Your task to perform on an android device: change the clock style Image 0: 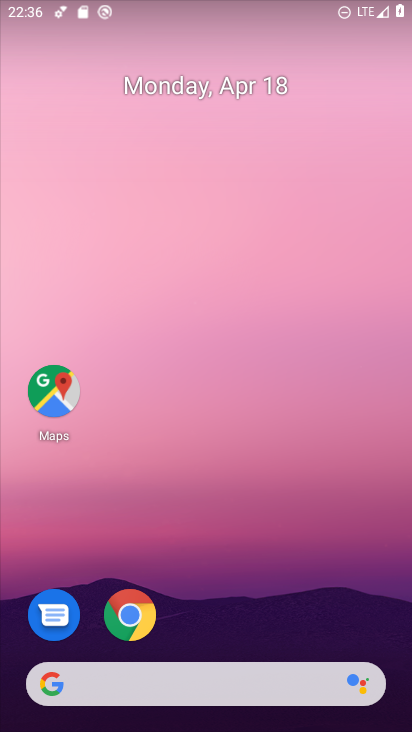
Step 0: drag from (364, 620) to (351, 27)
Your task to perform on an android device: change the clock style Image 1: 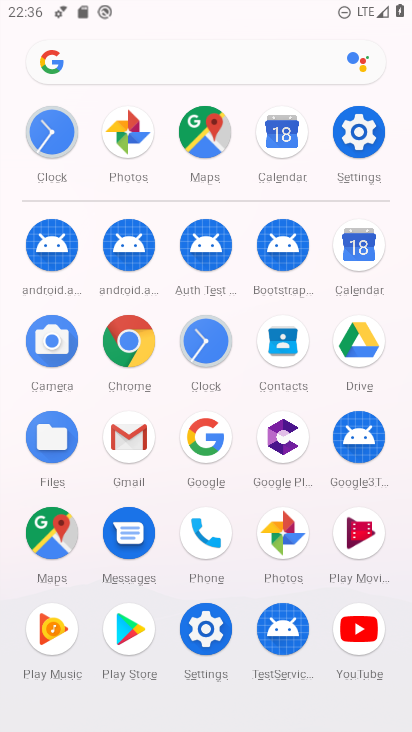
Step 1: click (50, 139)
Your task to perform on an android device: change the clock style Image 2: 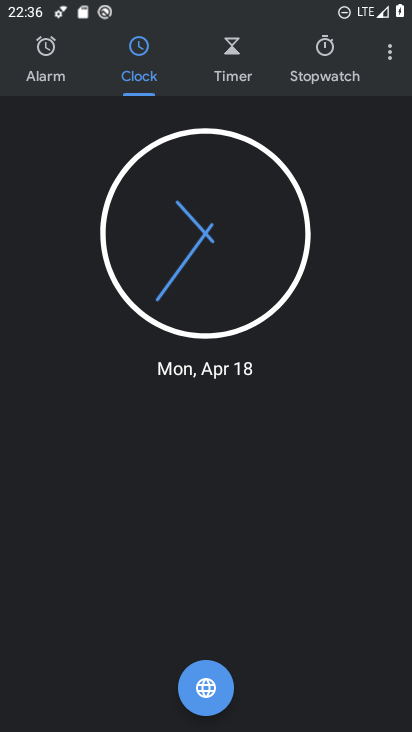
Step 2: click (391, 63)
Your task to perform on an android device: change the clock style Image 3: 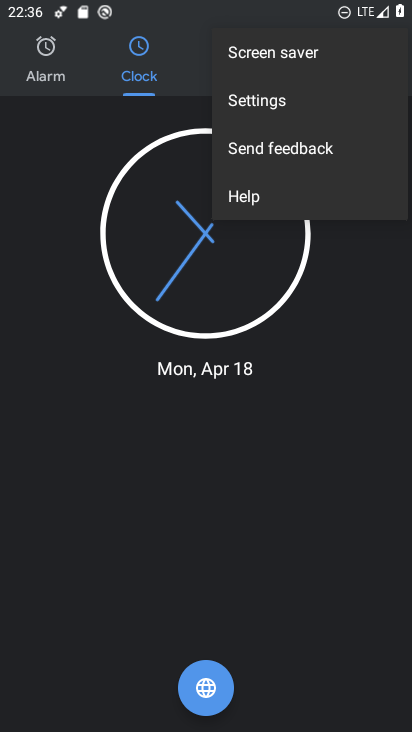
Step 3: click (257, 112)
Your task to perform on an android device: change the clock style Image 4: 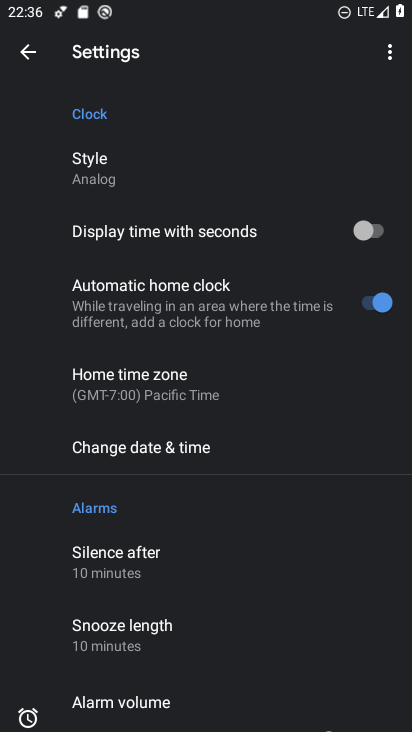
Step 4: click (97, 188)
Your task to perform on an android device: change the clock style Image 5: 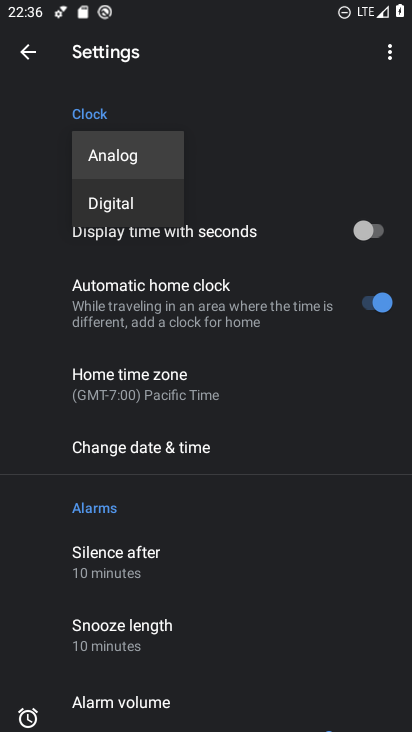
Step 5: click (125, 199)
Your task to perform on an android device: change the clock style Image 6: 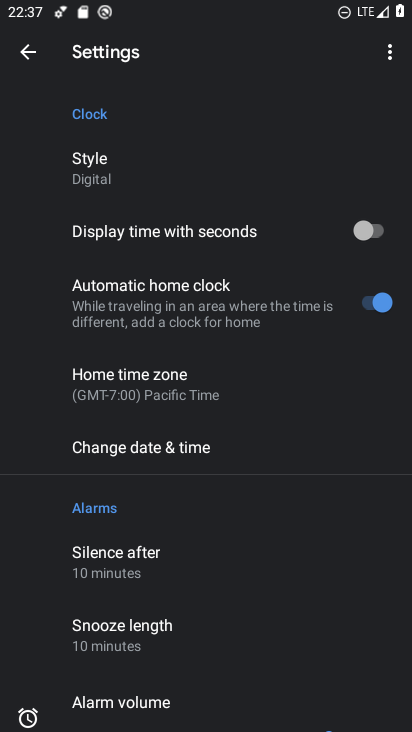
Step 6: task complete